Your task to perform on an android device: Search for a sofa on article.com Image 0: 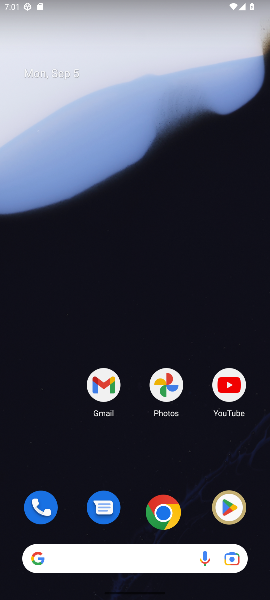
Step 0: click (224, 37)
Your task to perform on an android device: Search for a sofa on article.com Image 1: 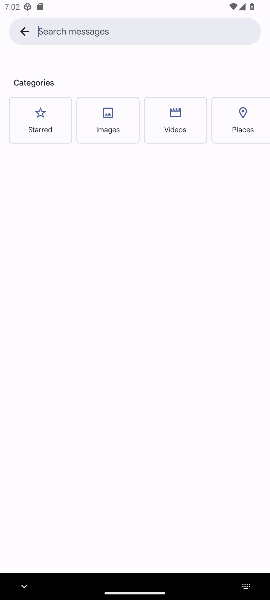
Step 1: press home button
Your task to perform on an android device: Search for a sofa on article.com Image 2: 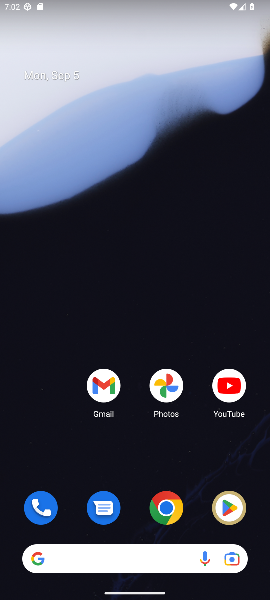
Step 2: click (166, 519)
Your task to perform on an android device: Search for a sofa on article.com Image 3: 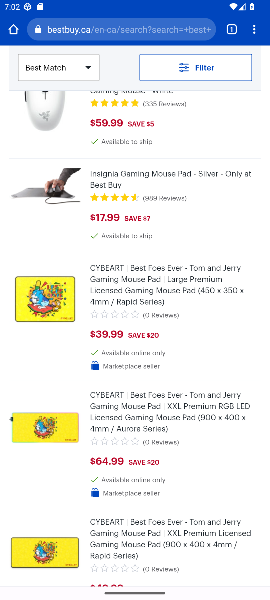
Step 3: click (114, 25)
Your task to perform on an android device: Search for a sofa on article.com Image 4: 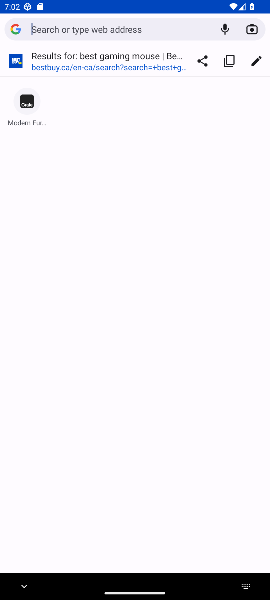
Step 4: type "article.com"
Your task to perform on an android device: Search for a sofa on article.com Image 5: 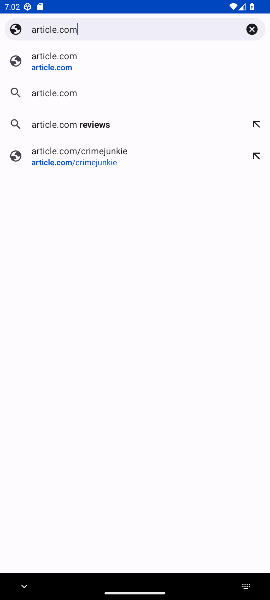
Step 5: click (49, 73)
Your task to perform on an android device: Search for a sofa on article.com Image 6: 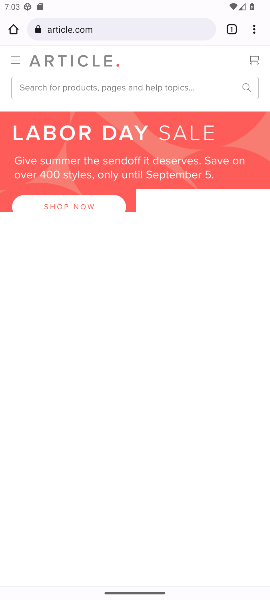
Step 6: click (242, 91)
Your task to perform on an android device: Search for a sofa on article.com Image 7: 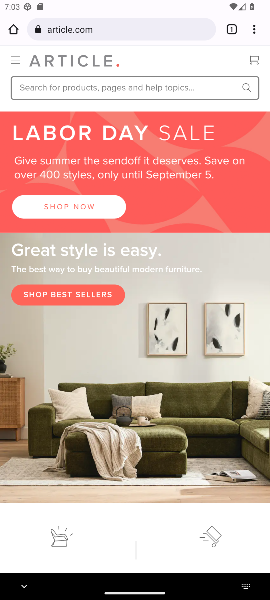
Step 7: click (147, 88)
Your task to perform on an android device: Search for a sofa on article.com Image 8: 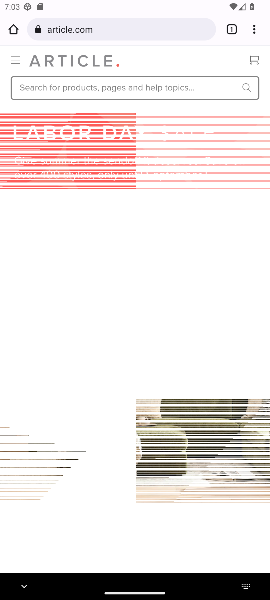
Step 8: click (37, 84)
Your task to perform on an android device: Search for a sofa on article.com Image 9: 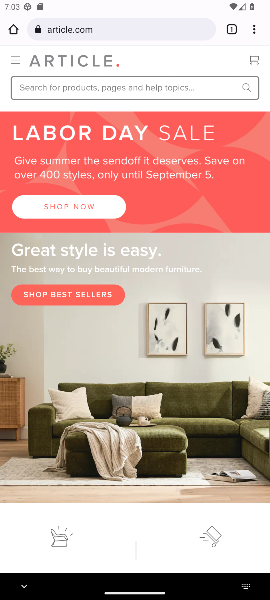
Step 9: click (36, 94)
Your task to perform on an android device: Search for a sofa on article.com Image 10: 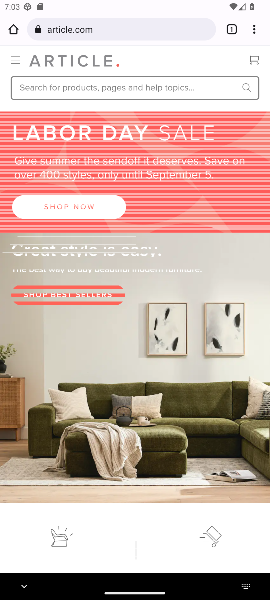
Step 10: click (45, 92)
Your task to perform on an android device: Search for a sofa on article.com Image 11: 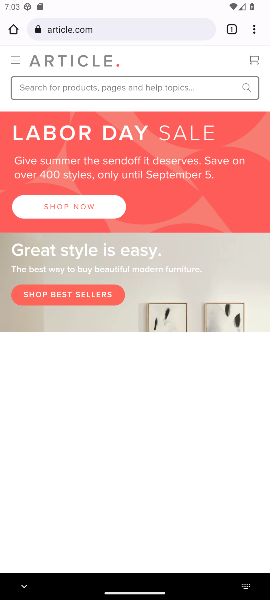
Step 11: click (42, 87)
Your task to perform on an android device: Search for a sofa on article.com Image 12: 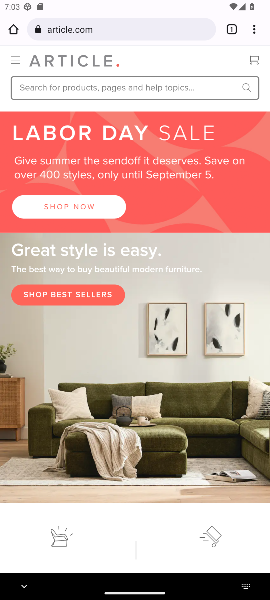
Step 12: drag from (227, 254) to (38, 91)
Your task to perform on an android device: Search for a sofa on article.com Image 13: 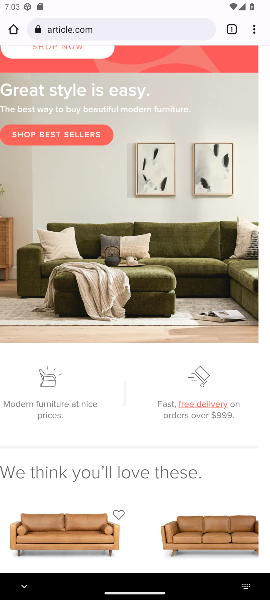
Step 13: drag from (129, 135) to (128, 333)
Your task to perform on an android device: Search for a sofa on article.com Image 14: 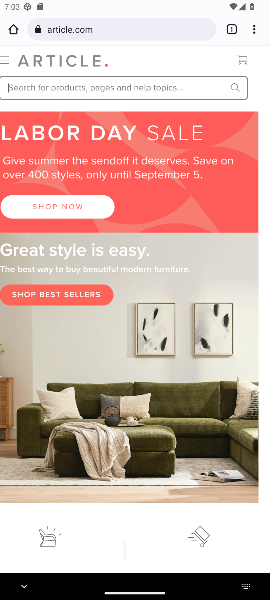
Step 14: type "sofa"
Your task to perform on an android device: Search for a sofa on article.com Image 15: 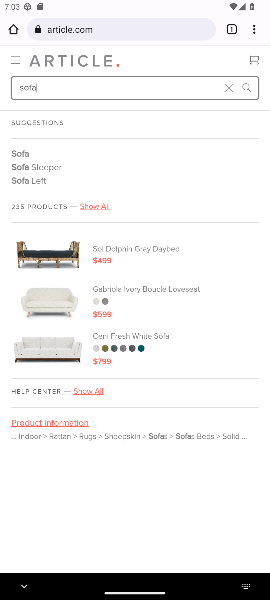
Step 15: task complete